Your task to perform on an android device: turn notification dots off Image 0: 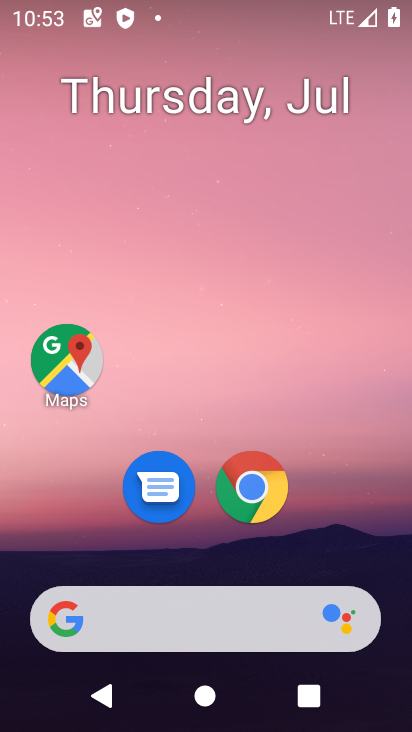
Step 0: drag from (205, 546) to (278, 2)
Your task to perform on an android device: turn notification dots off Image 1: 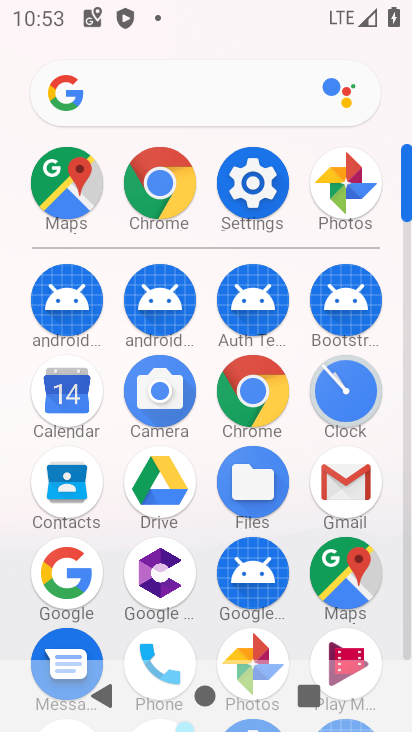
Step 1: click (258, 186)
Your task to perform on an android device: turn notification dots off Image 2: 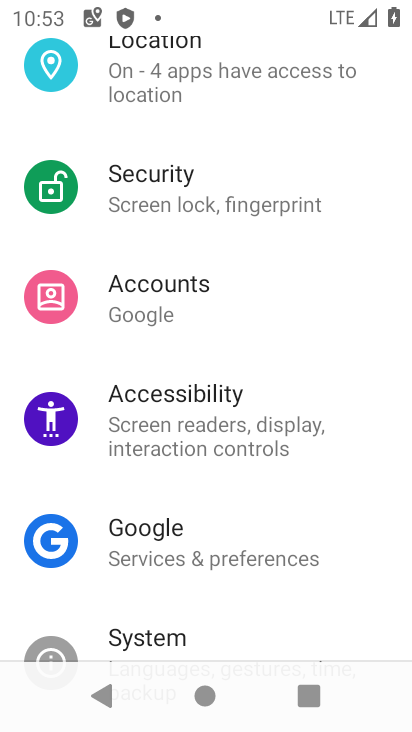
Step 2: drag from (241, 165) to (203, 729)
Your task to perform on an android device: turn notification dots off Image 3: 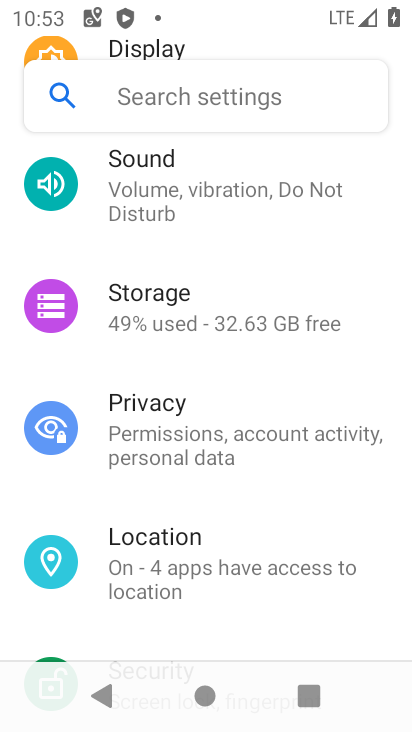
Step 3: drag from (183, 172) to (202, 724)
Your task to perform on an android device: turn notification dots off Image 4: 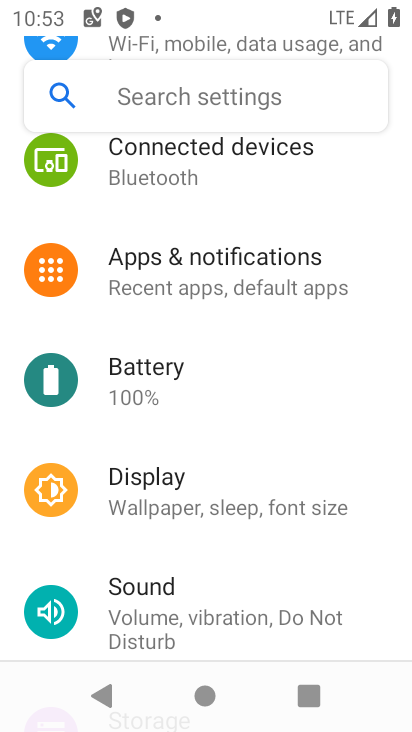
Step 4: click (236, 269)
Your task to perform on an android device: turn notification dots off Image 5: 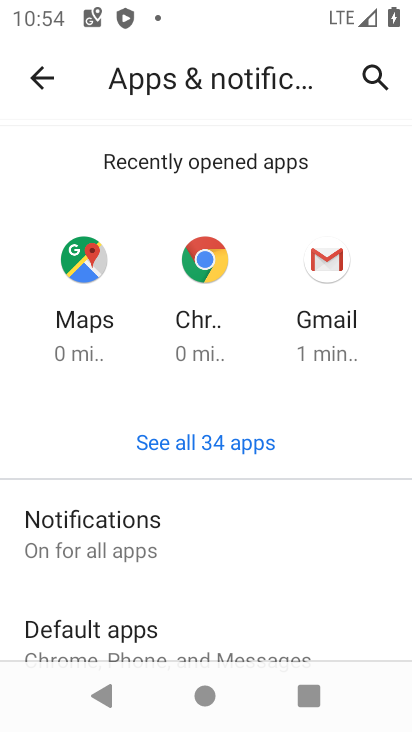
Step 5: drag from (186, 615) to (256, 389)
Your task to perform on an android device: turn notification dots off Image 6: 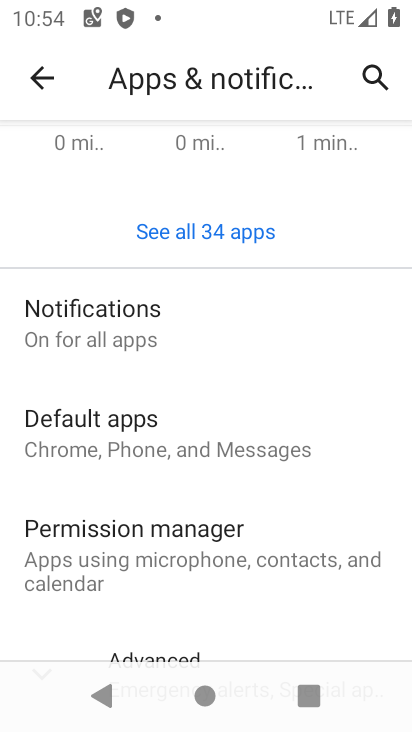
Step 6: click (126, 332)
Your task to perform on an android device: turn notification dots off Image 7: 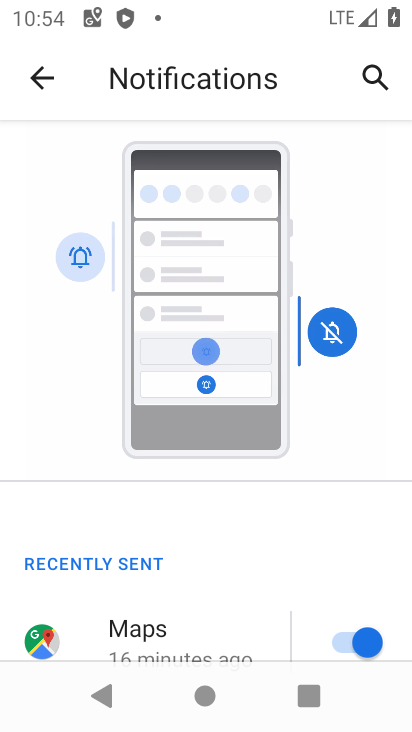
Step 7: drag from (157, 633) to (227, 64)
Your task to perform on an android device: turn notification dots off Image 8: 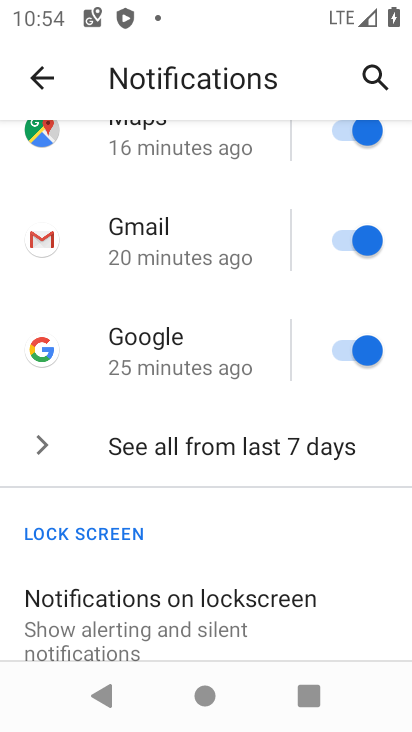
Step 8: drag from (152, 616) to (242, 257)
Your task to perform on an android device: turn notification dots off Image 9: 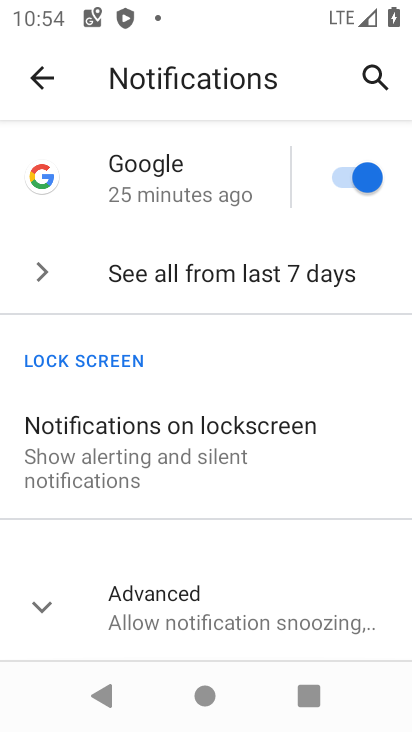
Step 9: click (264, 609)
Your task to perform on an android device: turn notification dots off Image 10: 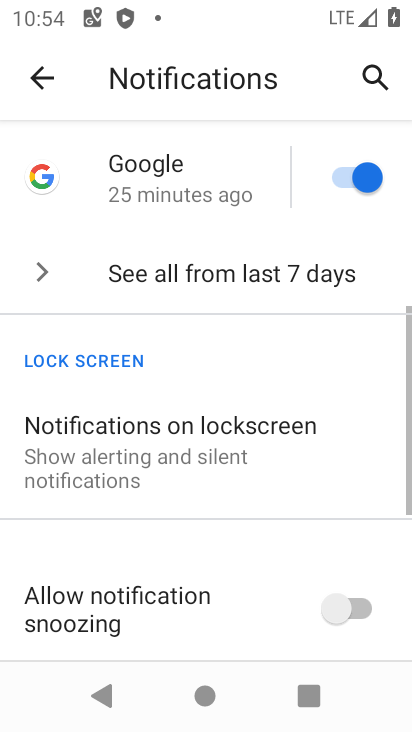
Step 10: drag from (230, 636) to (250, 252)
Your task to perform on an android device: turn notification dots off Image 11: 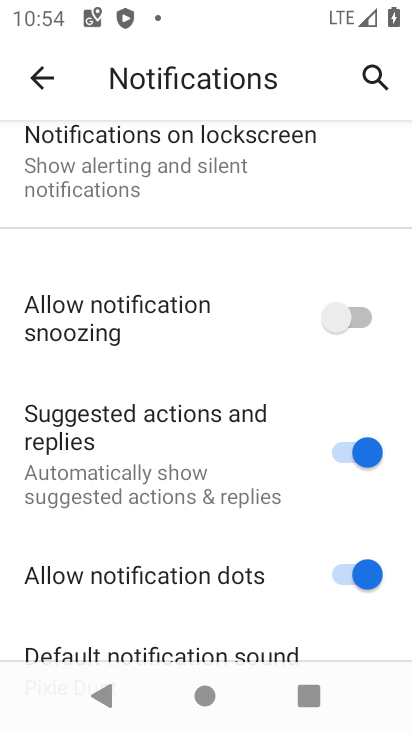
Step 11: click (359, 569)
Your task to perform on an android device: turn notification dots off Image 12: 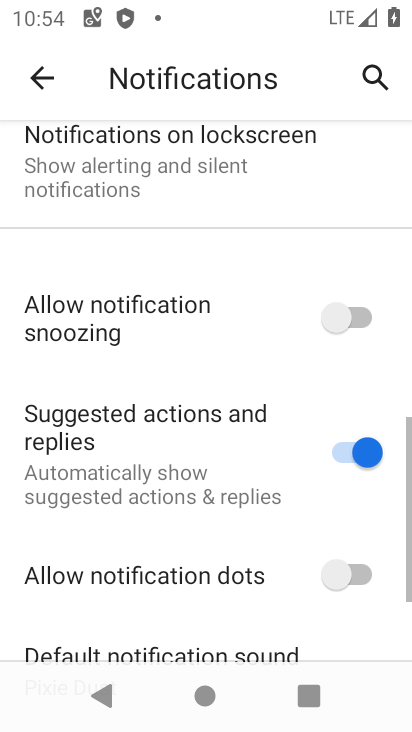
Step 12: task complete